Your task to perform on an android device: What's on my calendar tomorrow? Image 0: 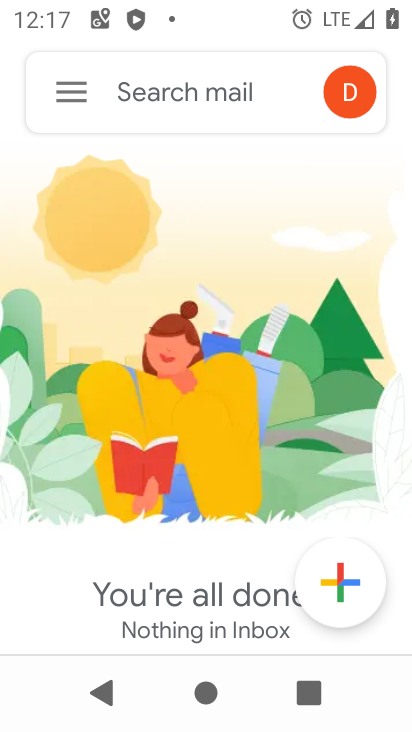
Step 0: press home button
Your task to perform on an android device: What's on my calendar tomorrow? Image 1: 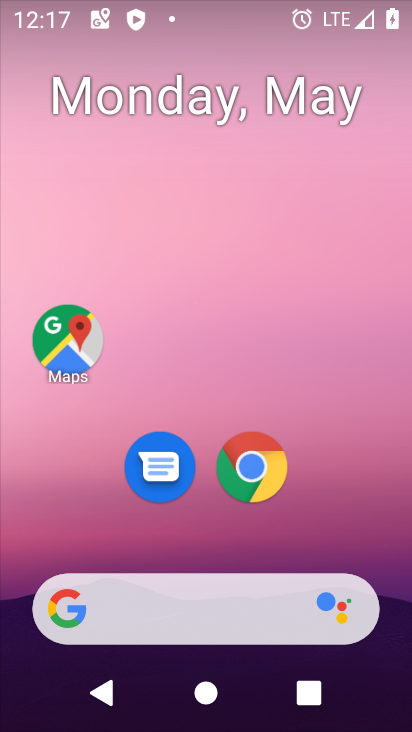
Step 1: drag from (360, 558) to (343, 9)
Your task to perform on an android device: What's on my calendar tomorrow? Image 2: 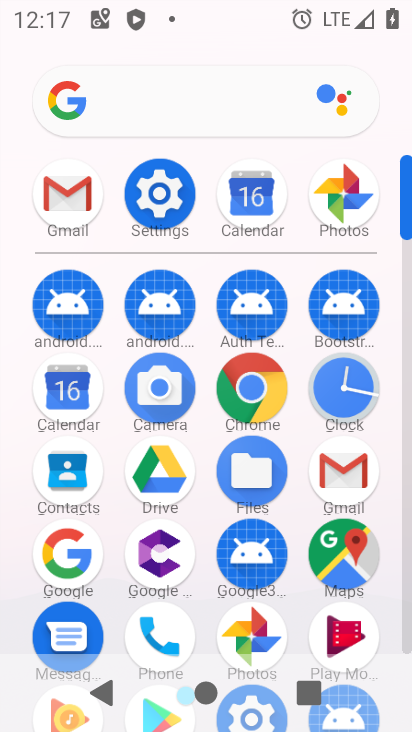
Step 2: click (249, 202)
Your task to perform on an android device: What's on my calendar tomorrow? Image 3: 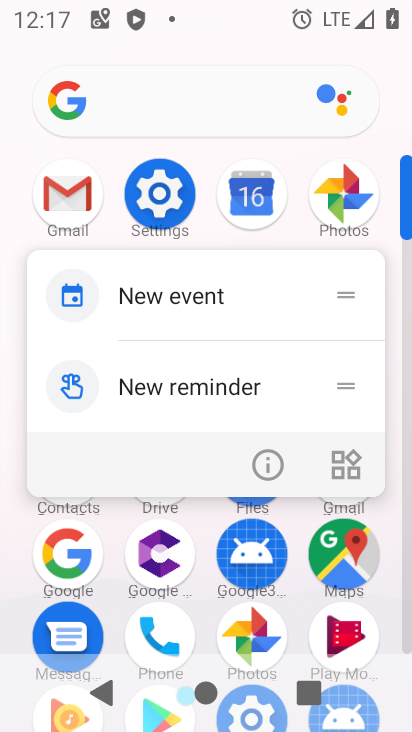
Step 3: click (249, 202)
Your task to perform on an android device: What's on my calendar tomorrow? Image 4: 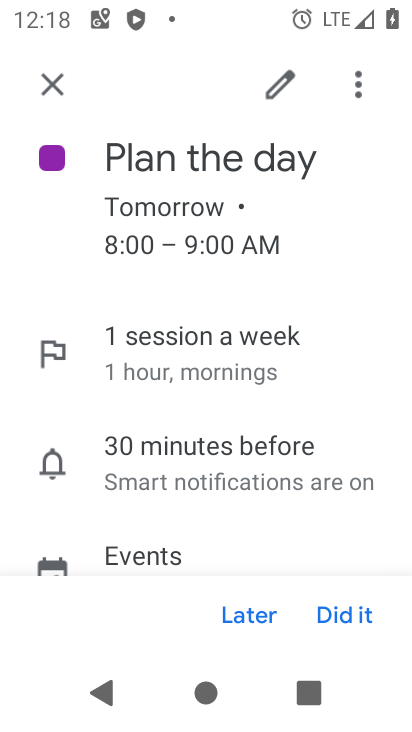
Step 4: task complete